Your task to perform on an android device: turn off translation in the chrome app Image 0: 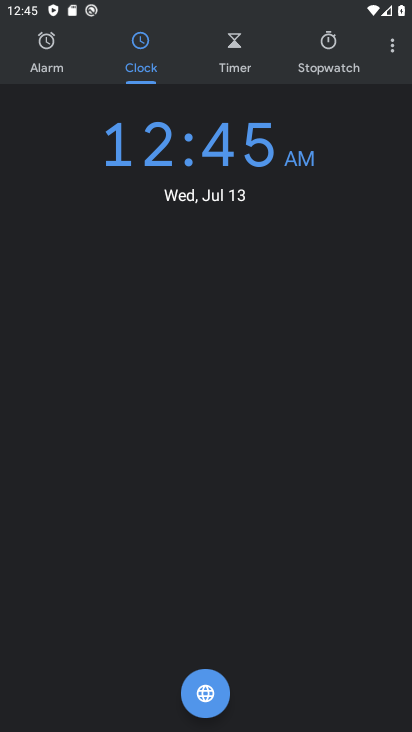
Step 0: press home button
Your task to perform on an android device: turn off translation in the chrome app Image 1: 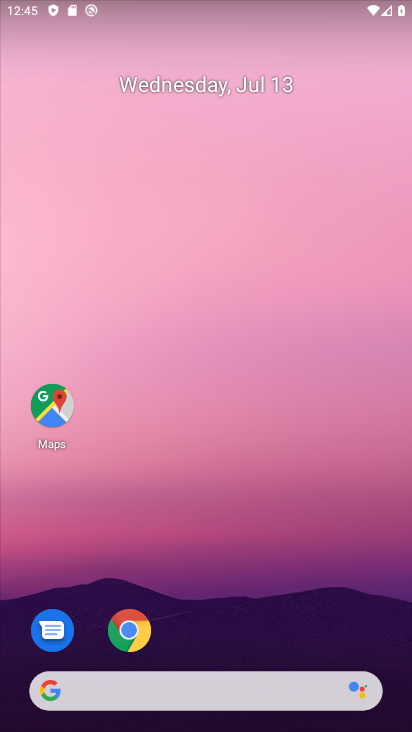
Step 1: drag from (320, 505) to (274, 20)
Your task to perform on an android device: turn off translation in the chrome app Image 2: 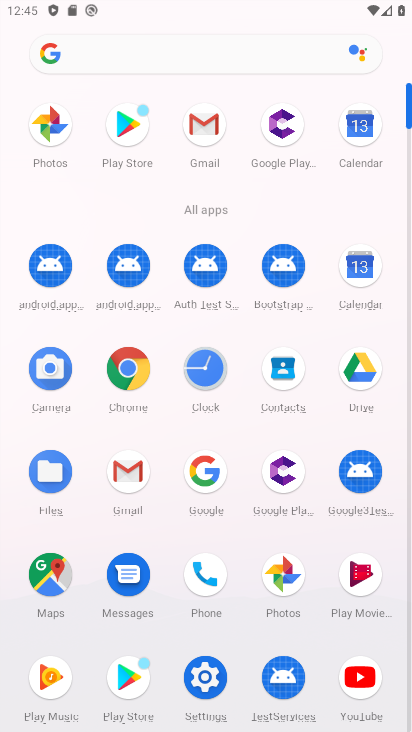
Step 2: click (131, 377)
Your task to perform on an android device: turn off translation in the chrome app Image 3: 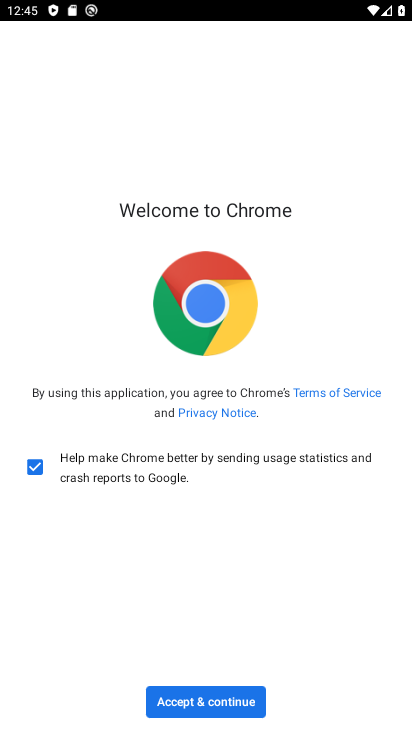
Step 3: click (244, 702)
Your task to perform on an android device: turn off translation in the chrome app Image 4: 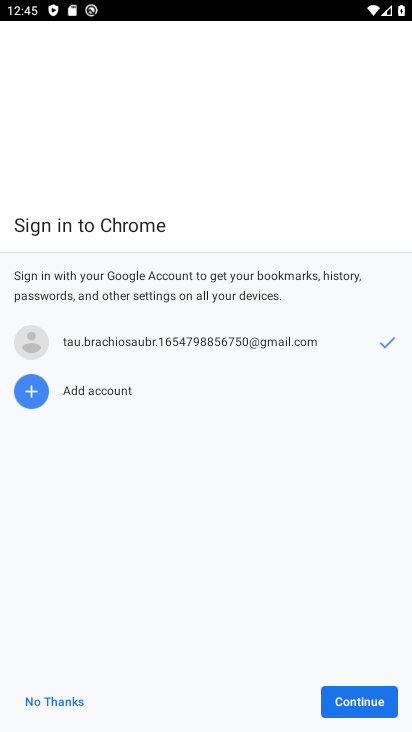
Step 4: click (72, 699)
Your task to perform on an android device: turn off translation in the chrome app Image 5: 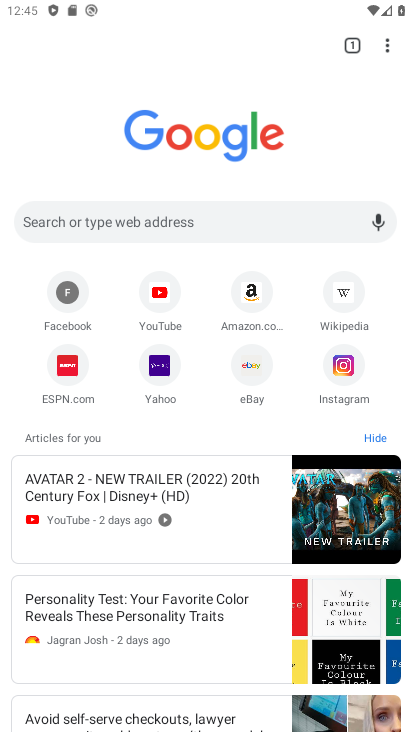
Step 5: drag from (386, 58) to (250, 374)
Your task to perform on an android device: turn off translation in the chrome app Image 6: 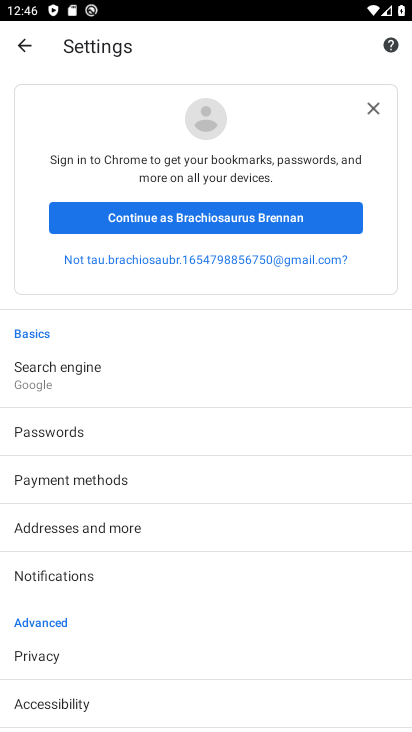
Step 6: drag from (223, 654) to (253, 202)
Your task to perform on an android device: turn off translation in the chrome app Image 7: 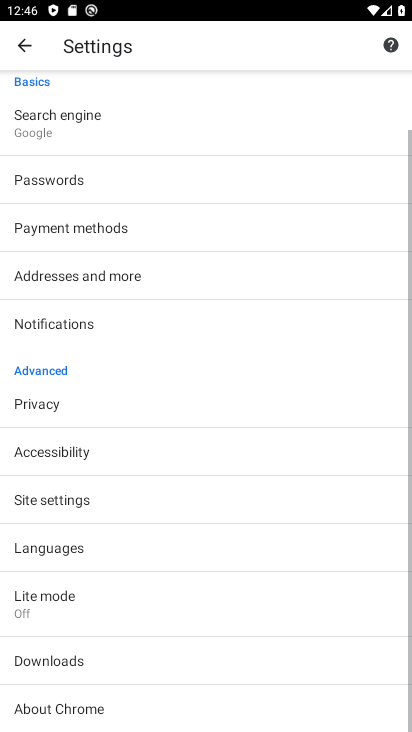
Step 7: click (139, 558)
Your task to perform on an android device: turn off translation in the chrome app Image 8: 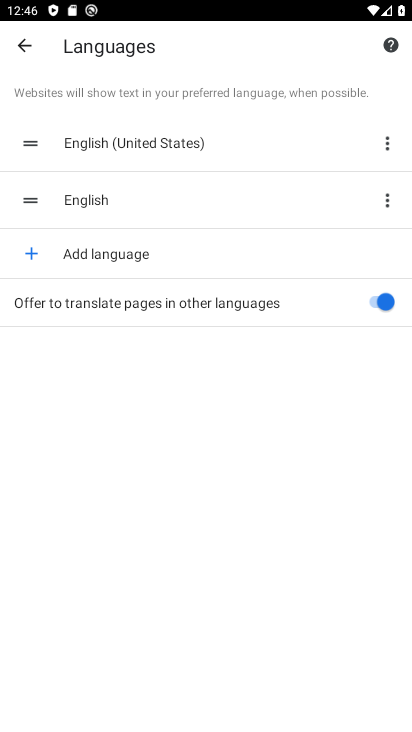
Step 8: click (379, 300)
Your task to perform on an android device: turn off translation in the chrome app Image 9: 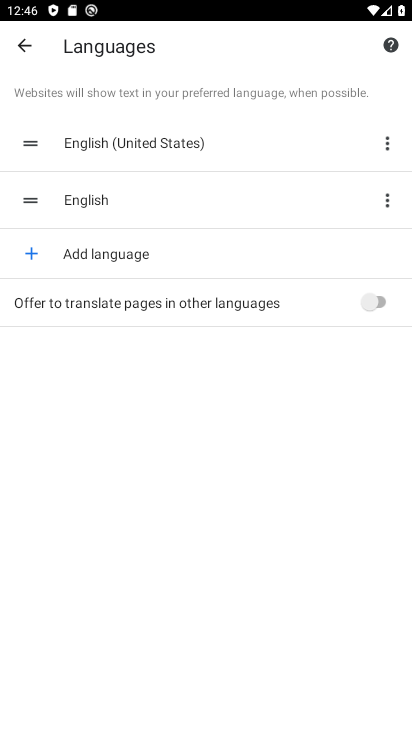
Step 9: task complete